Your task to perform on an android device: set default search engine in the chrome app Image 0: 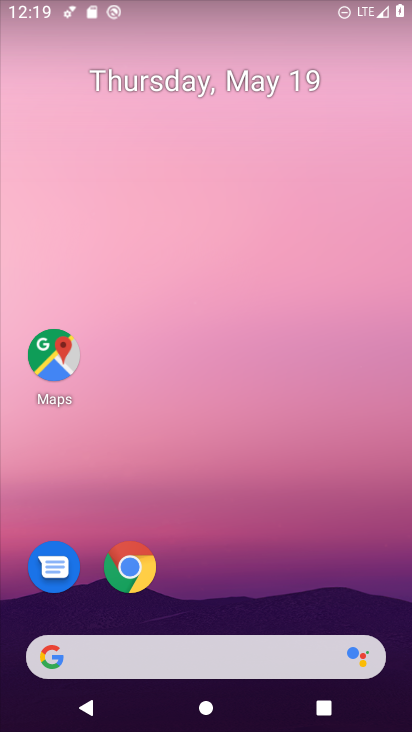
Step 0: click (136, 564)
Your task to perform on an android device: set default search engine in the chrome app Image 1: 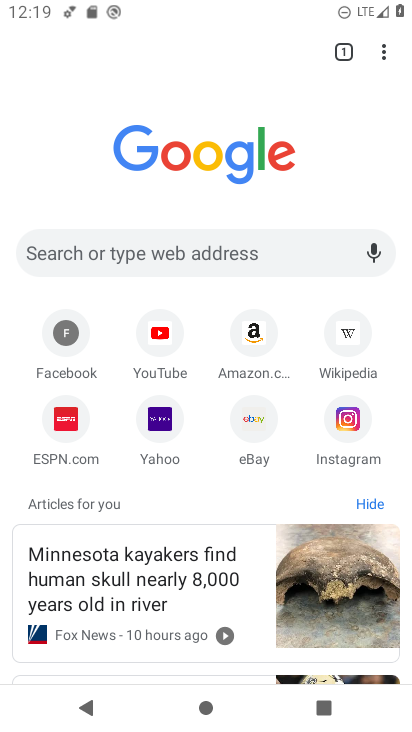
Step 1: click (380, 47)
Your task to perform on an android device: set default search engine in the chrome app Image 2: 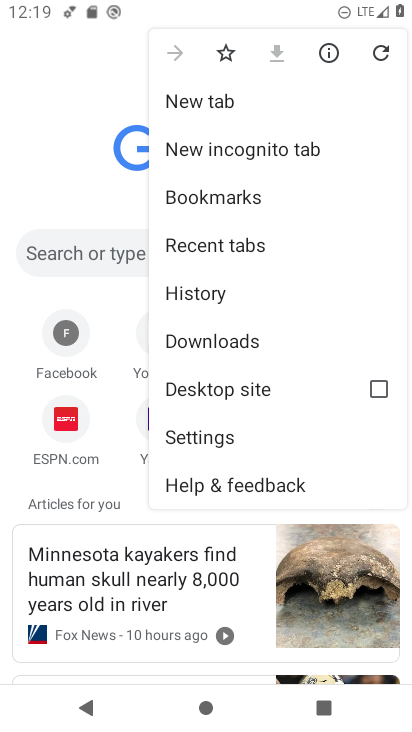
Step 2: click (231, 432)
Your task to perform on an android device: set default search engine in the chrome app Image 3: 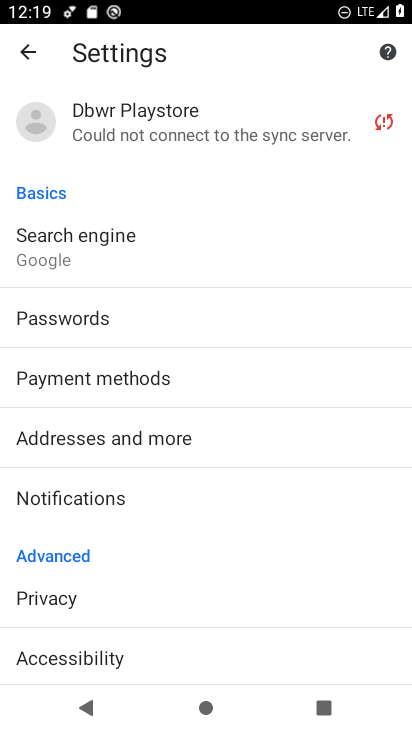
Step 3: click (105, 227)
Your task to perform on an android device: set default search engine in the chrome app Image 4: 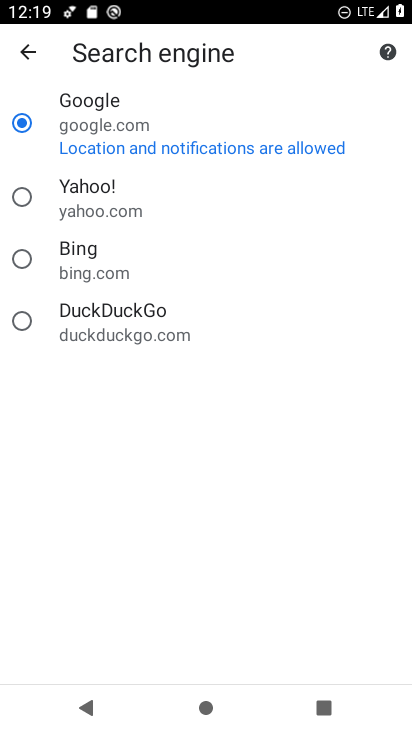
Step 4: task complete